Your task to perform on an android device: add a label to a message in the gmail app Image 0: 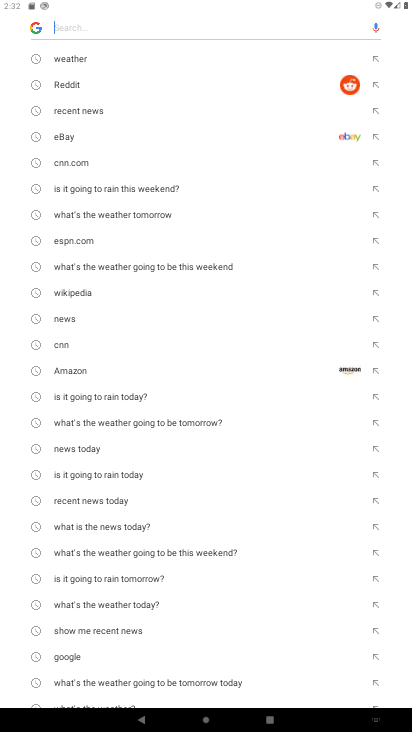
Step 0: press home button
Your task to perform on an android device: add a label to a message in the gmail app Image 1: 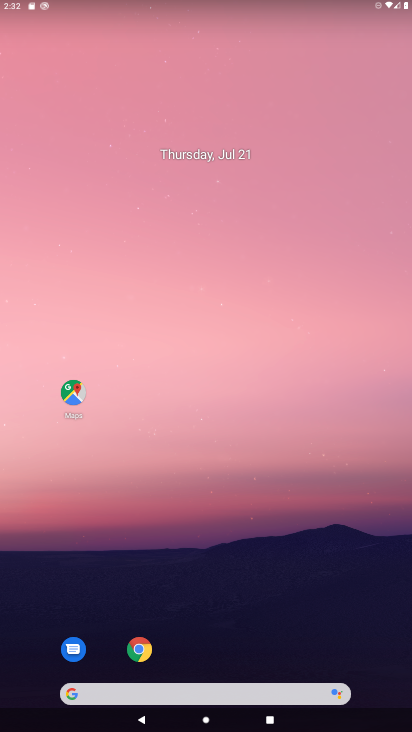
Step 1: drag from (175, 628) to (213, 95)
Your task to perform on an android device: add a label to a message in the gmail app Image 2: 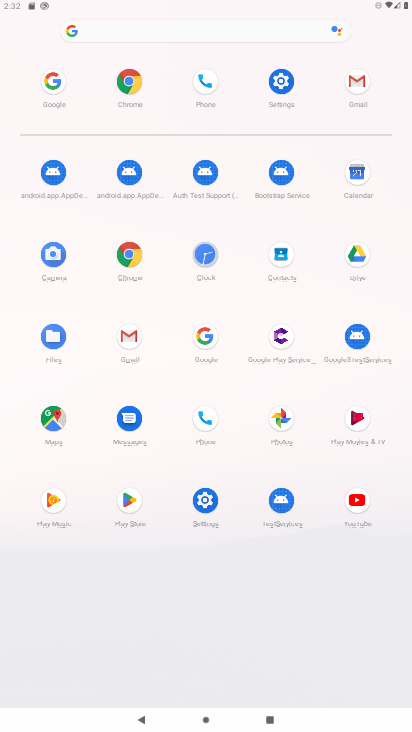
Step 2: click (359, 83)
Your task to perform on an android device: add a label to a message in the gmail app Image 3: 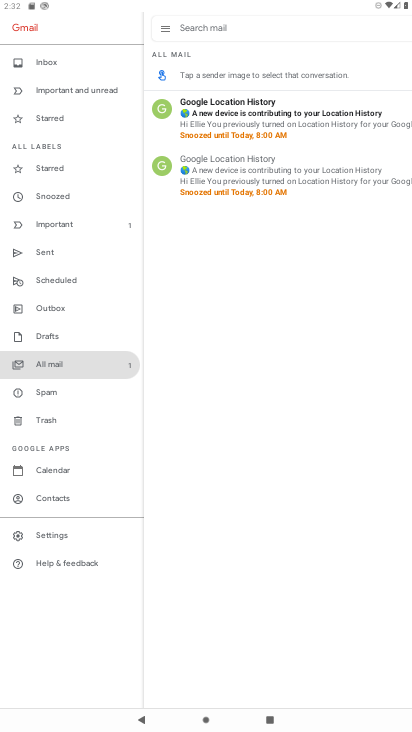
Step 3: click (243, 120)
Your task to perform on an android device: add a label to a message in the gmail app Image 4: 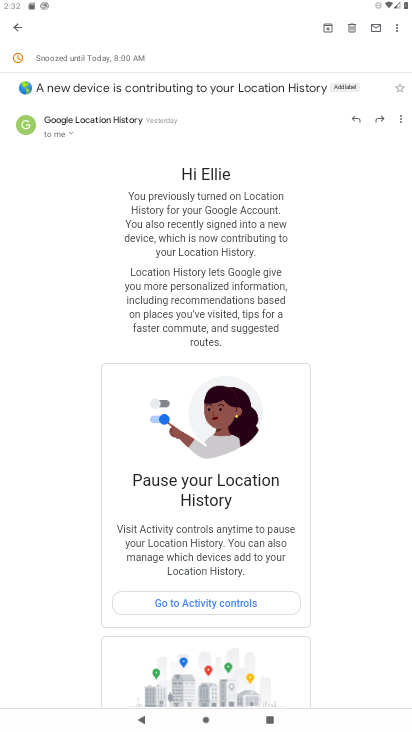
Step 4: task complete